Your task to perform on an android device: Go to Google Image 0: 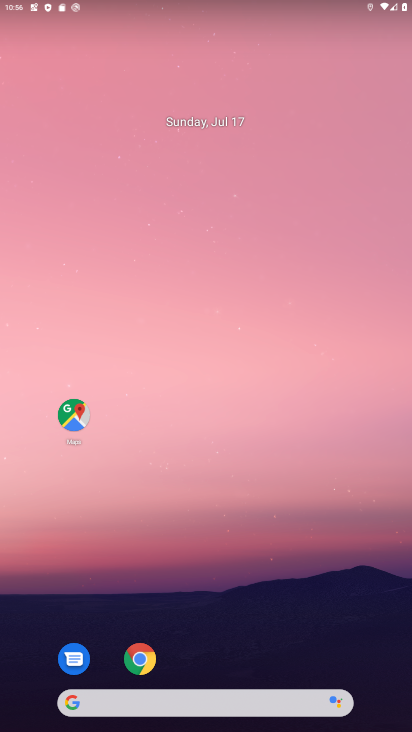
Step 0: drag from (294, 568) to (284, 110)
Your task to perform on an android device: Go to Google Image 1: 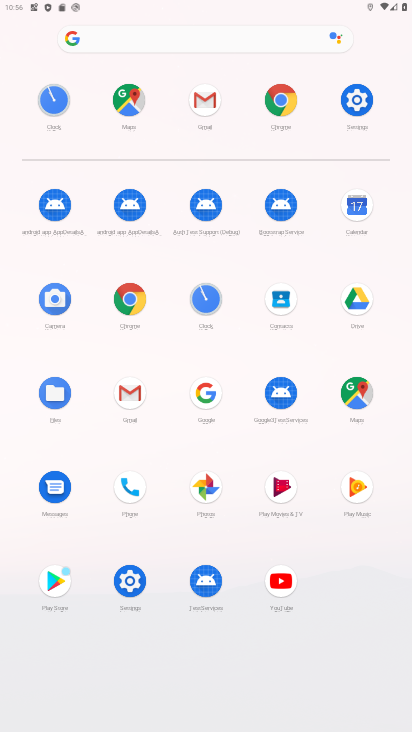
Step 1: click (194, 398)
Your task to perform on an android device: Go to Google Image 2: 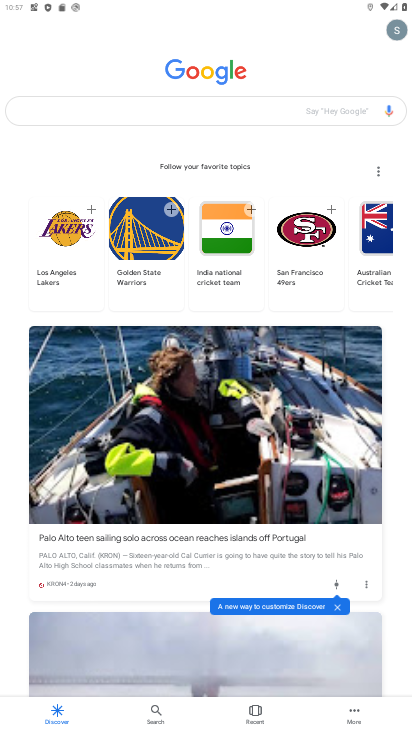
Step 2: task complete